Your task to perform on an android device: star an email in the gmail app Image 0: 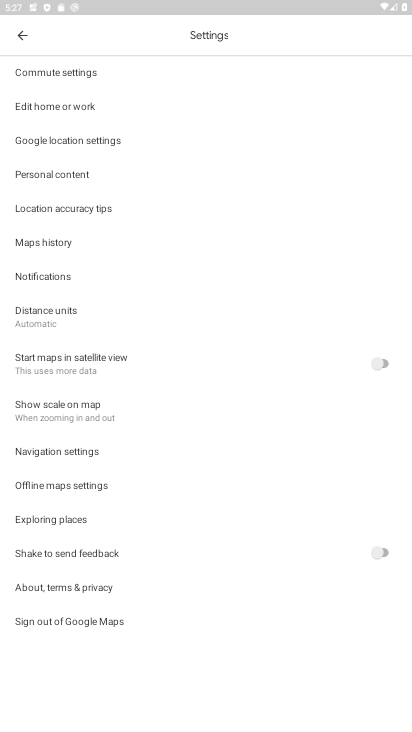
Step 0: press home button
Your task to perform on an android device: star an email in the gmail app Image 1: 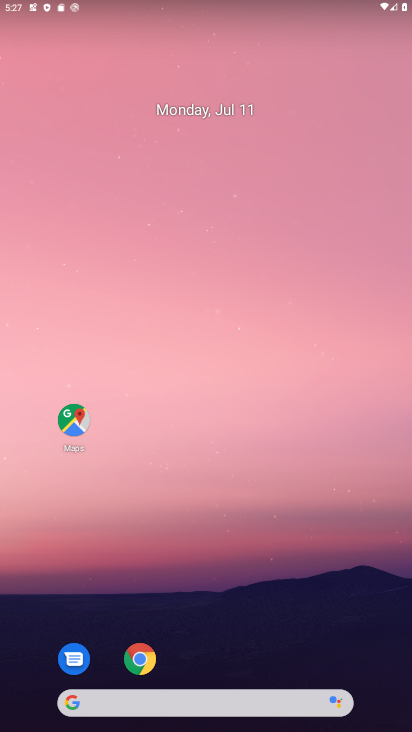
Step 1: drag from (363, 651) to (319, 123)
Your task to perform on an android device: star an email in the gmail app Image 2: 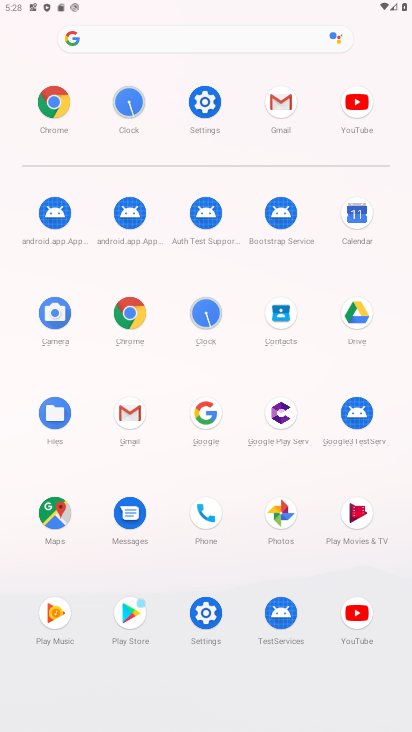
Step 2: click (128, 408)
Your task to perform on an android device: star an email in the gmail app Image 3: 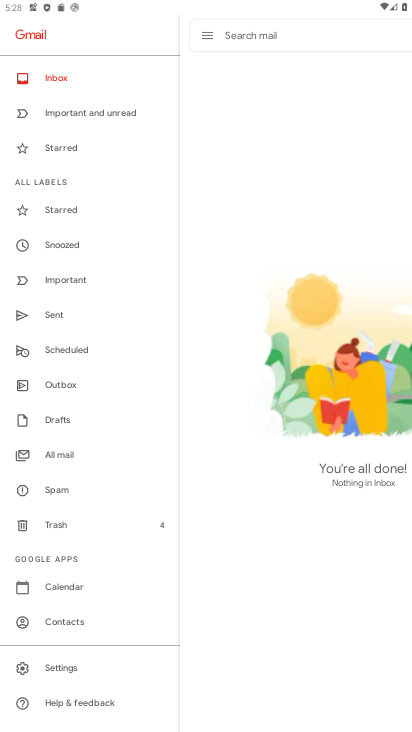
Step 3: click (60, 450)
Your task to perform on an android device: star an email in the gmail app Image 4: 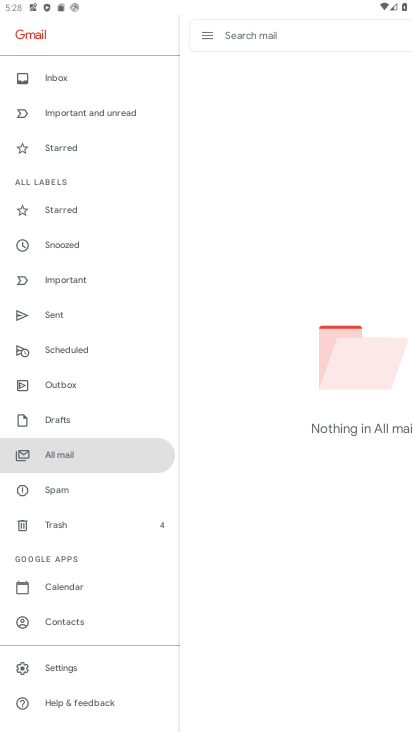
Step 4: task complete